Your task to perform on an android device: Open Google Maps Image 0: 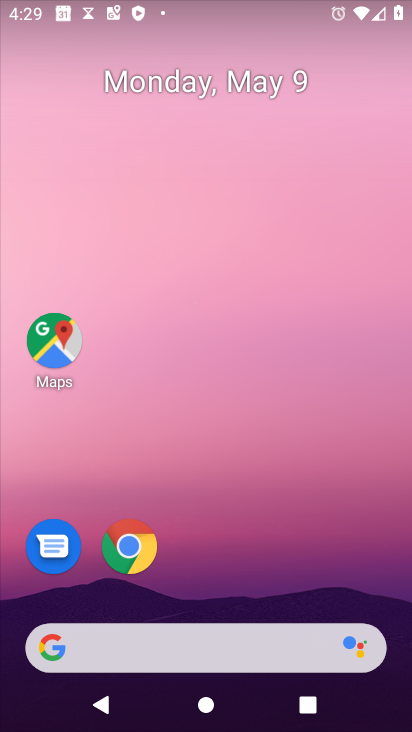
Step 0: drag from (325, 421) to (282, 23)
Your task to perform on an android device: Open Google Maps Image 1: 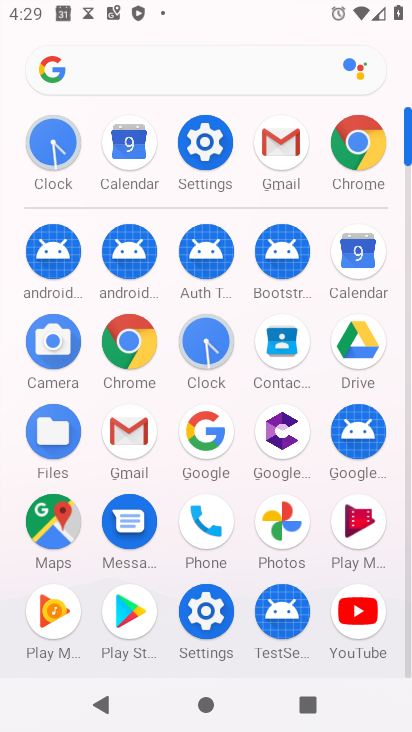
Step 1: click (63, 519)
Your task to perform on an android device: Open Google Maps Image 2: 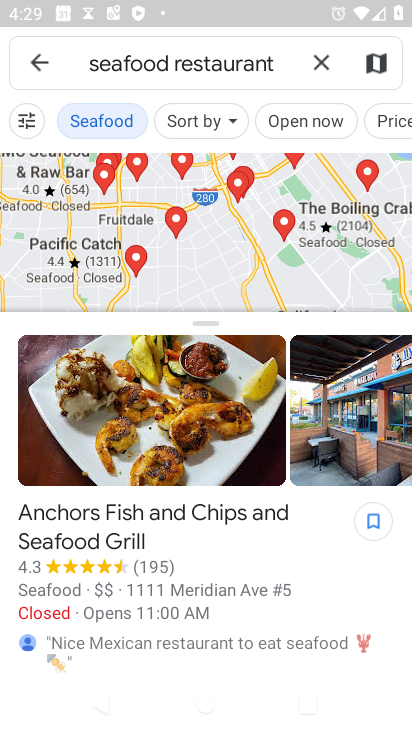
Step 2: task complete